Your task to perform on an android device: toggle priority inbox in the gmail app Image 0: 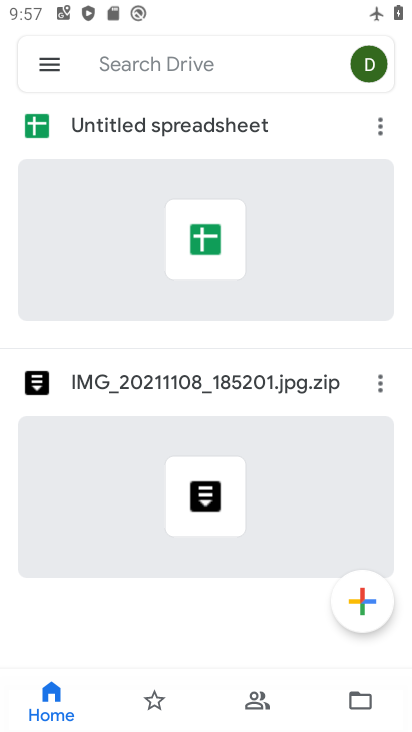
Step 0: press back button
Your task to perform on an android device: toggle priority inbox in the gmail app Image 1: 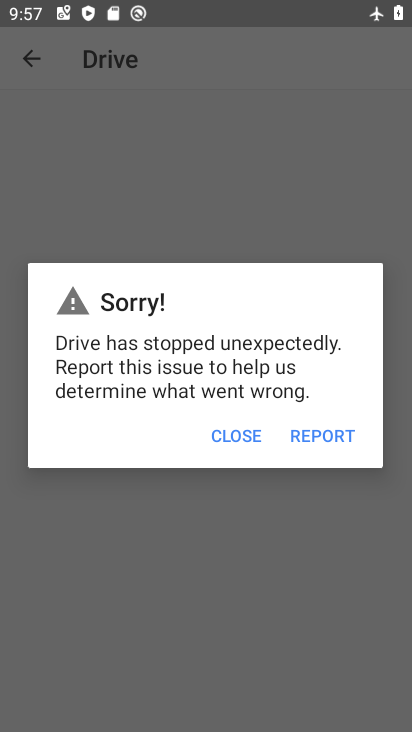
Step 1: press home button
Your task to perform on an android device: toggle priority inbox in the gmail app Image 2: 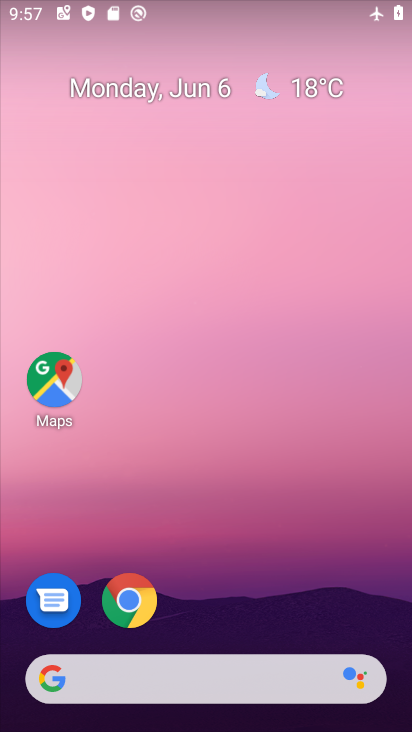
Step 2: drag from (261, 543) to (232, 5)
Your task to perform on an android device: toggle priority inbox in the gmail app Image 3: 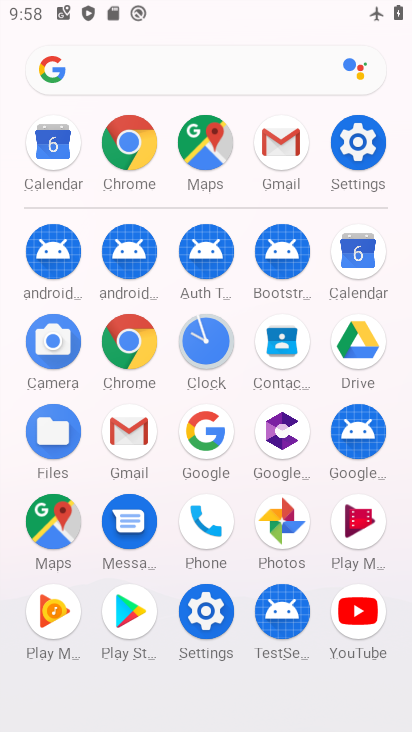
Step 3: click (128, 425)
Your task to perform on an android device: toggle priority inbox in the gmail app Image 4: 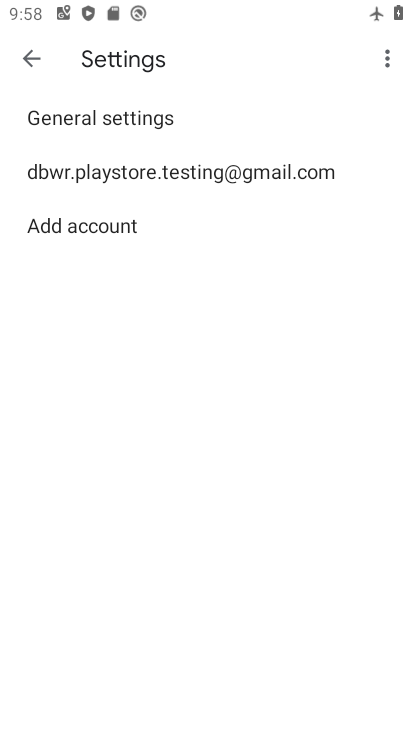
Step 4: click (87, 163)
Your task to perform on an android device: toggle priority inbox in the gmail app Image 5: 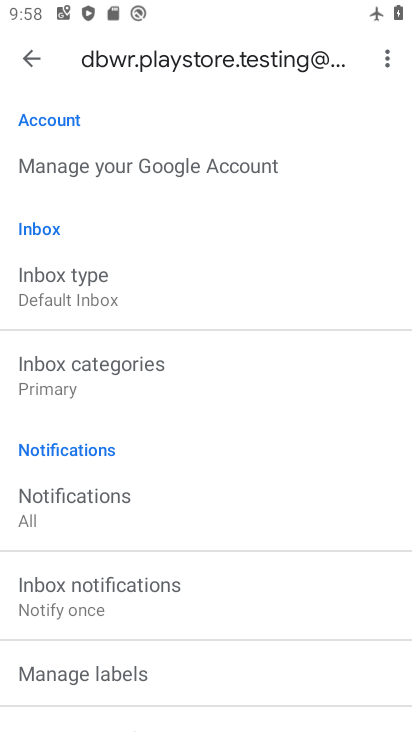
Step 5: click (81, 283)
Your task to perform on an android device: toggle priority inbox in the gmail app Image 6: 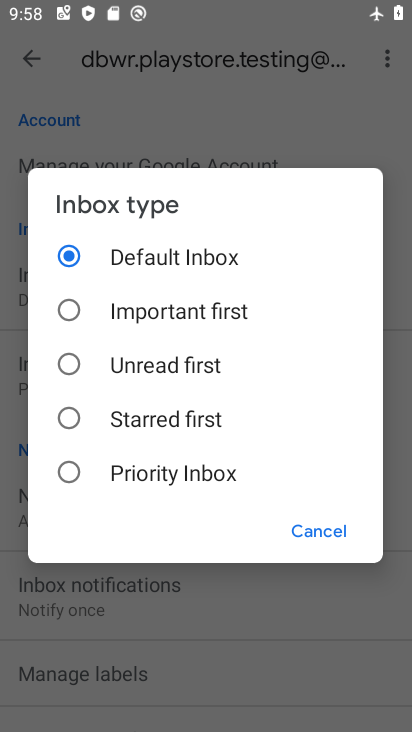
Step 6: click (180, 470)
Your task to perform on an android device: toggle priority inbox in the gmail app Image 7: 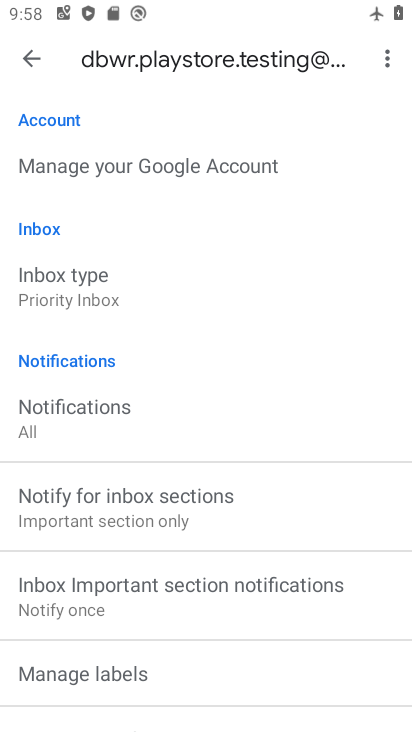
Step 7: task complete